Your task to perform on an android device: toggle airplane mode Image 0: 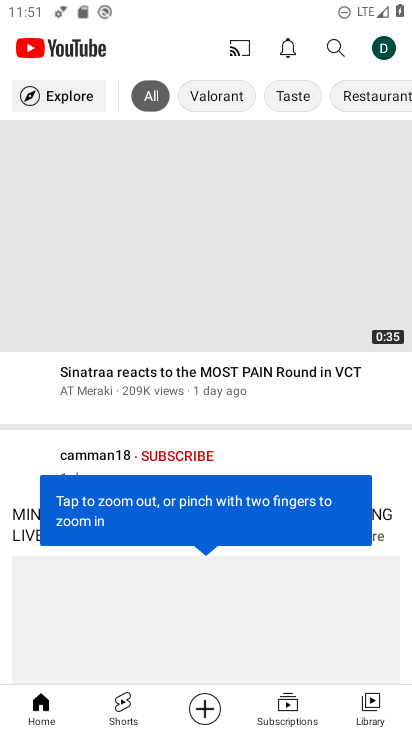
Step 0: press home button
Your task to perform on an android device: toggle airplane mode Image 1: 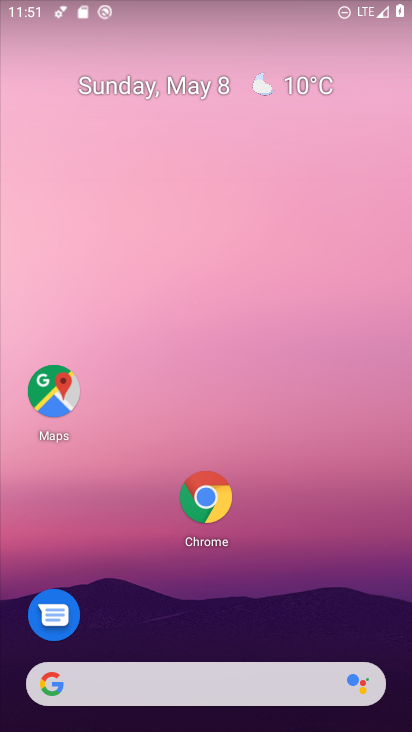
Step 1: drag from (315, 29) to (300, 437)
Your task to perform on an android device: toggle airplane mode Image 2: 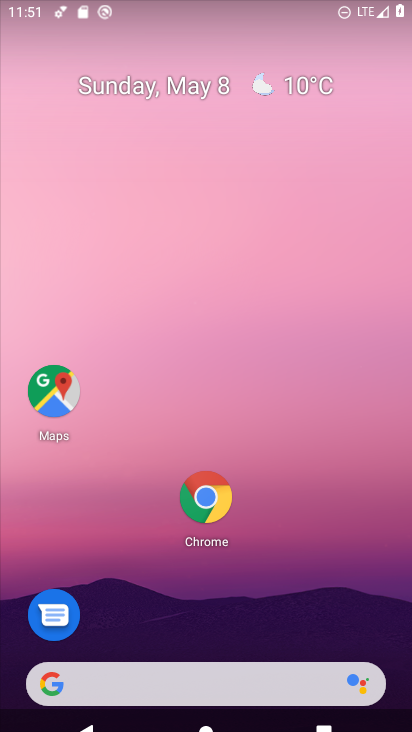
Step 2: drag from (288, 6) to (312, 535)
Your task to perform on an android device: toggle airplane mode Image 3: 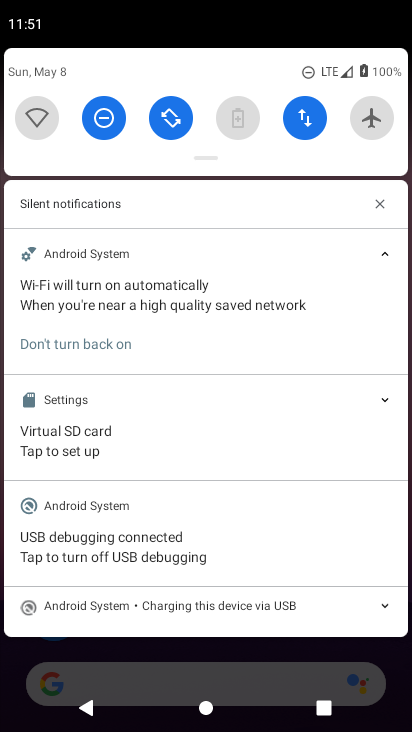
Step 3: click (366, 122)
Your task to perform on an android device: toggle airplane mode Image 4: 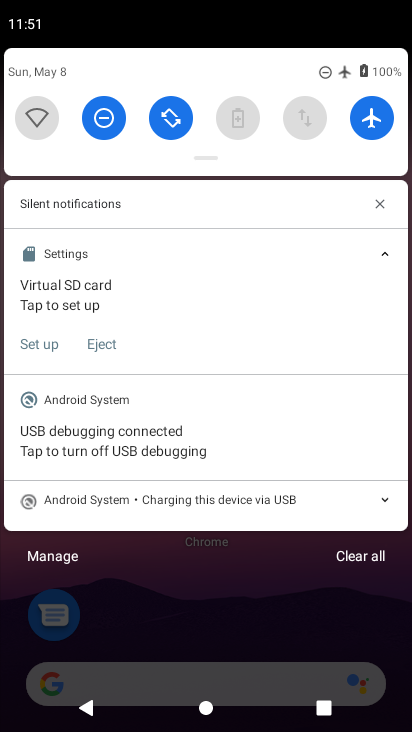
Step 4: task complete